Your task to perform on an android device: Go to Reddit.com Image 0: 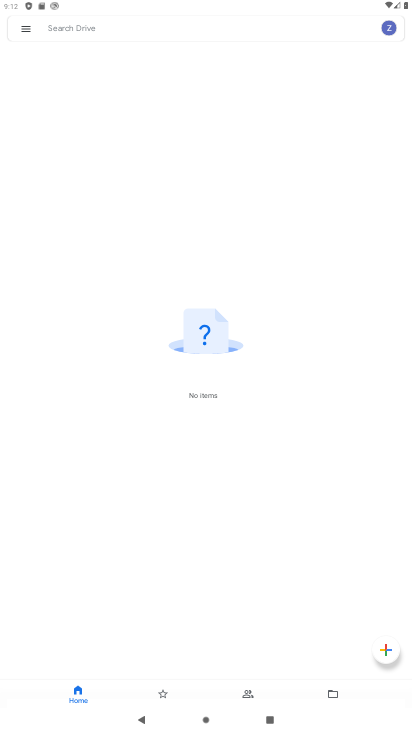
Step 0: press home button
Your task to perform on an android device: Go to Reddit.com Image 1: 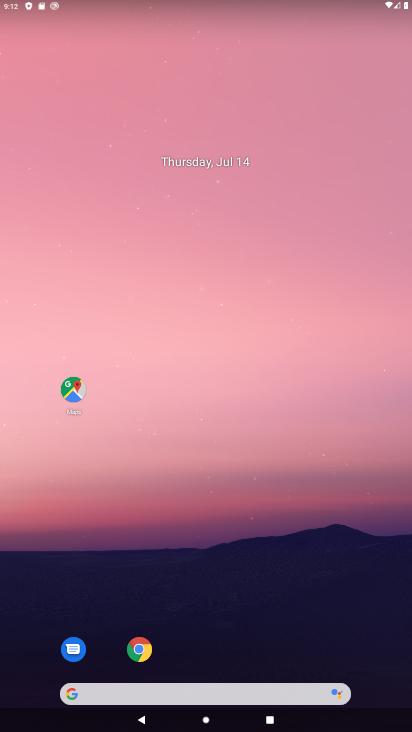
Step 1: click (150, 649)
Your task to perform on an android device: Go to Reddit.com Image 2: 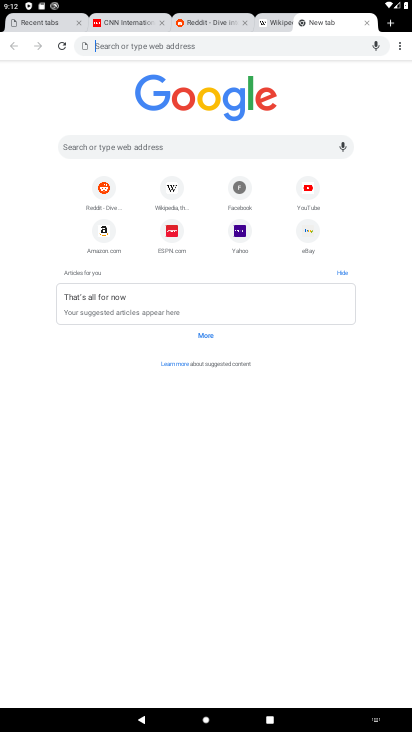
Step 2: click (206, 137)
Your task to perform on an android device: Go to Reddit.com Image 3: 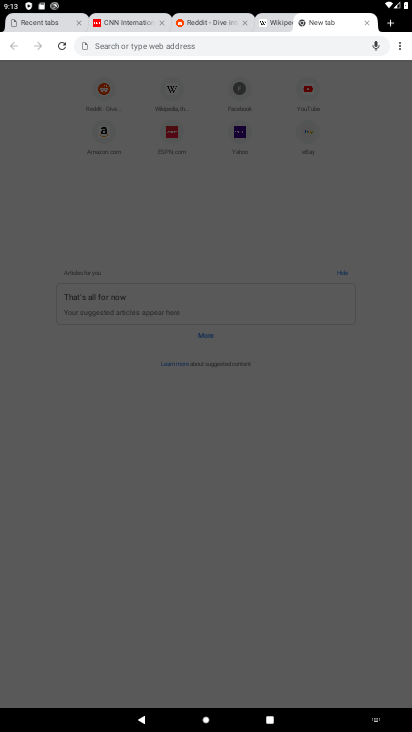
Step 3: type "Reddit.com"
Your task to perform on an android device: Go to Reddit.com Image 4: 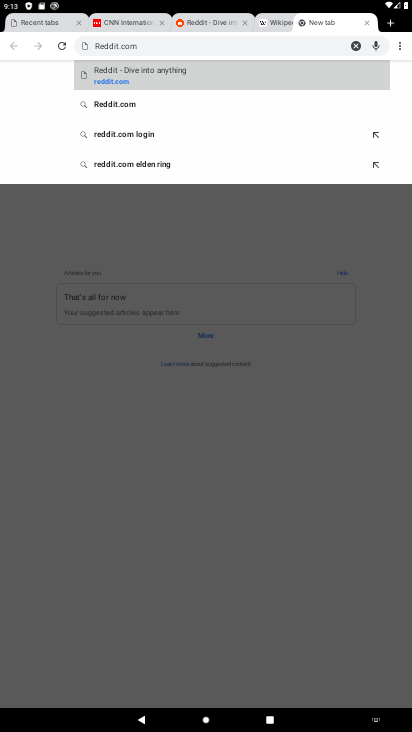
Step 4: click (143, 78)
Your task to perform on an android device: Go to Reddit.com Image 5: 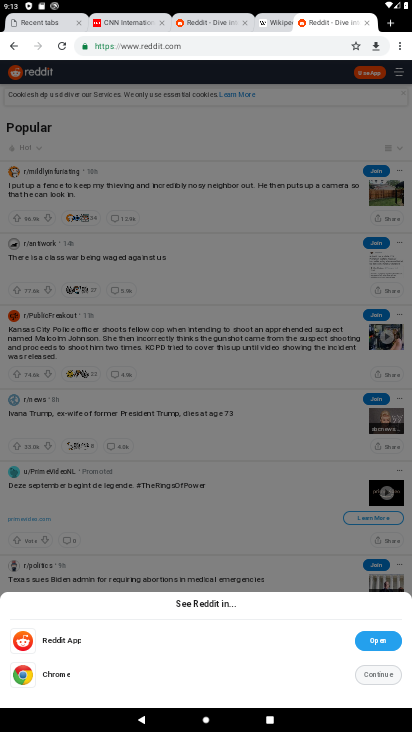
Step 5: task complete